Your task to perform on an android device: open chrome privacy settings Image 0: 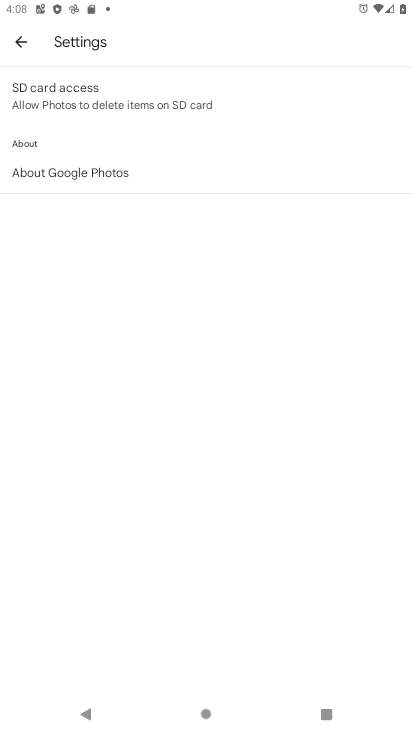
Step 0: press home button
Your task to perform on an android device: open chrome privacy settings Image 1: 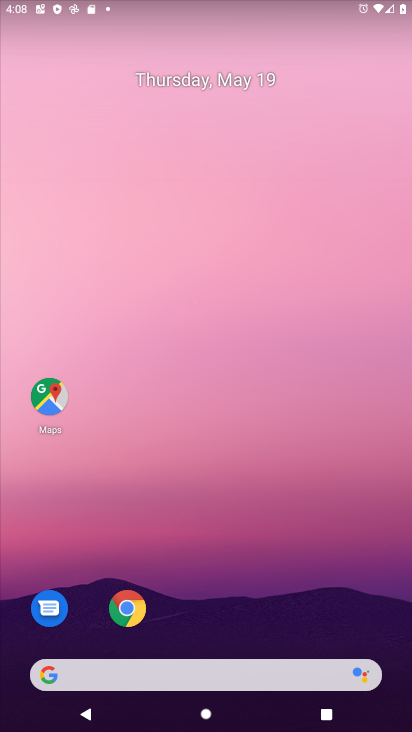
Step 1: drag from (296, 633) to (293, 324)
Your task to perform on an android device: open chrome privacy settings Image 2: 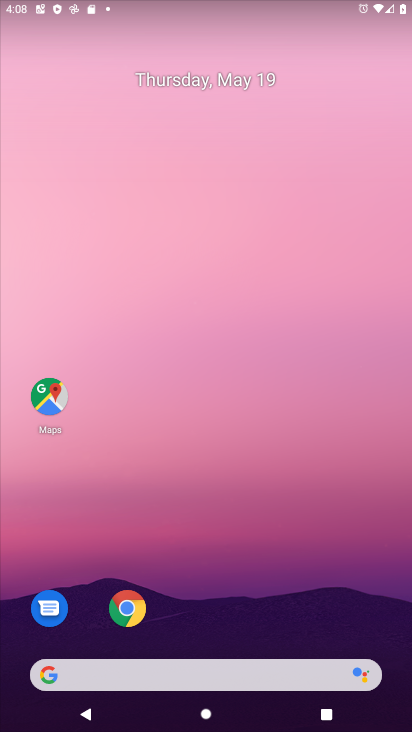
Step 2: drag from (242, 605) to (0, 85)
Your task to perform on an android device: open chrome privacy settings Image 3: 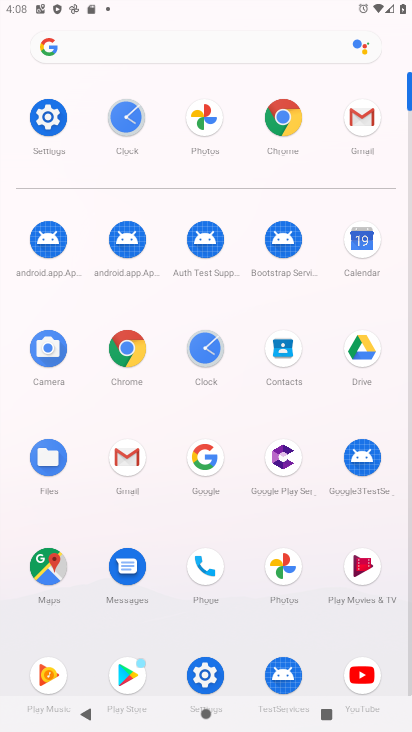
Step 3: click (30, 127)
Your task to perform on an android device: open chrome privacy settings Image 4: 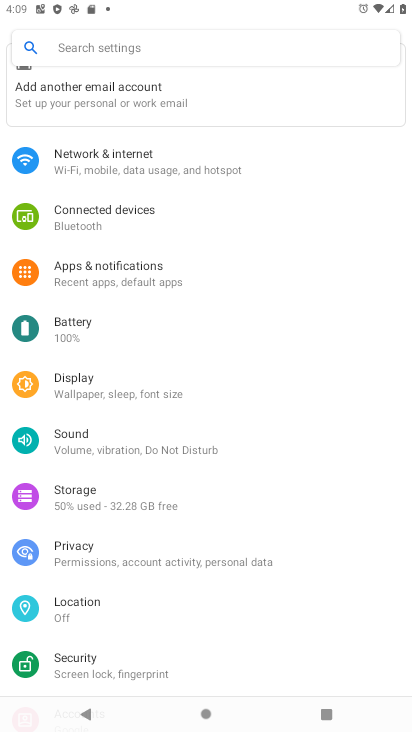
Step 4: click (138, 550)
Your task to perform on an android device: open chrome privacy settings Image 5: 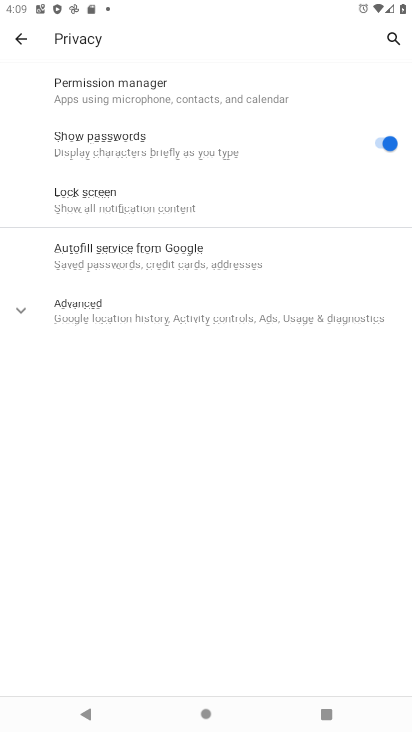
Step 5: task complete